Your task to perform on an android device: change timer sound Image 0: 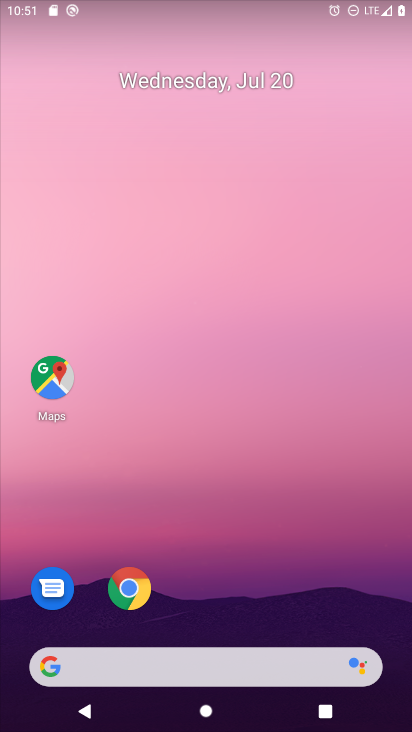
Step 0: drag from (197, 625) to (266, 102)
Your task to perform on an android device: change timer sound Image 1: 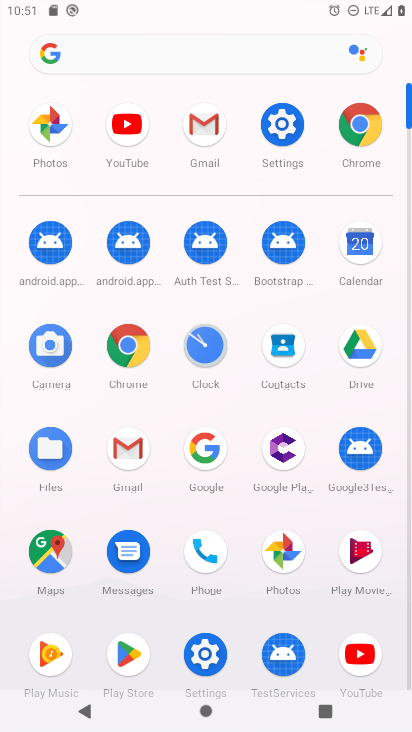
Step 1: click (203, 354)
Your task to perform on an android device: change timer sound Image 2: 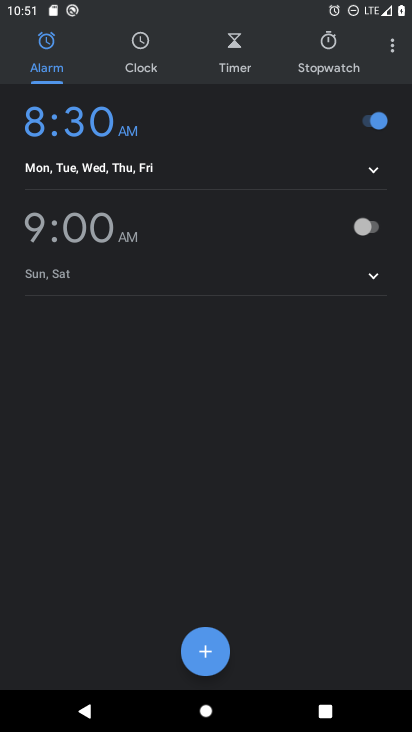
Step 2: click (403, 47)
Your task to perform on an android device: change timer sound Image 3: 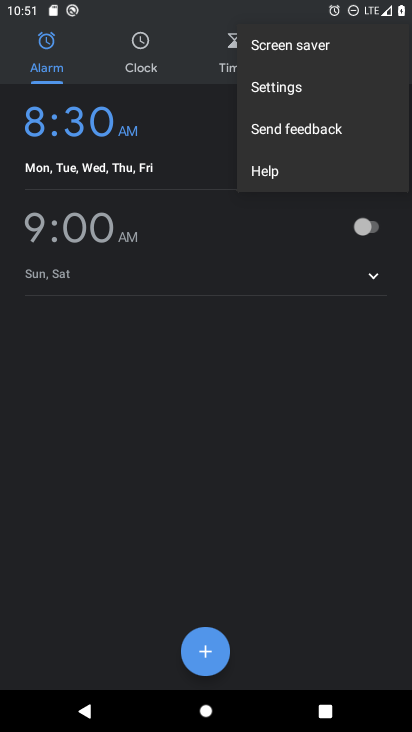
Step 3: click (230, 67)
Your task to perform on an android device: change timer sound Image 4: 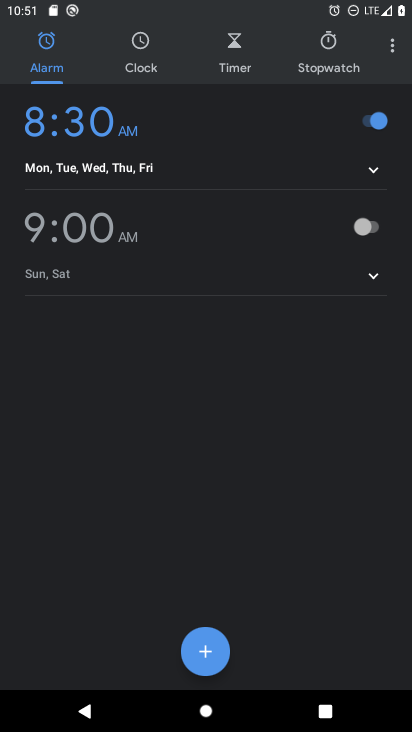
Step 4: click (230, 67)
Your task to perform on an android device: change timer sound Image 5: 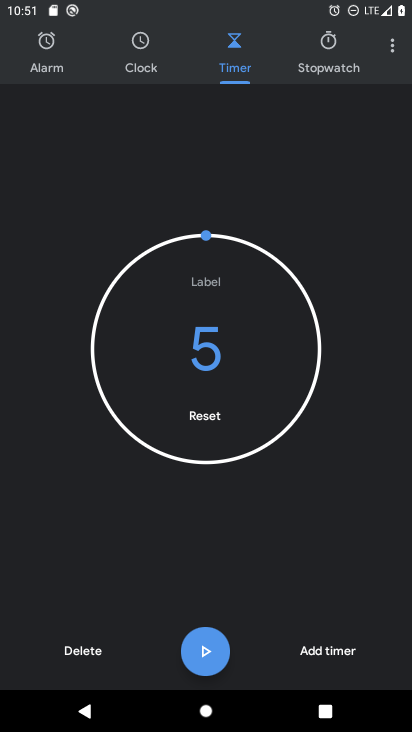
Step 5: task complete